Your task to perform on an android device: show emergency info Image 0: 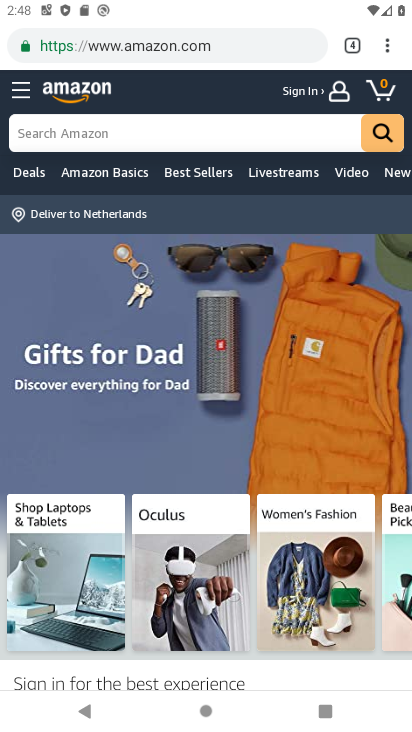
Step 0: press home button
Your task to perform on an android device: show emergency info Image 1: 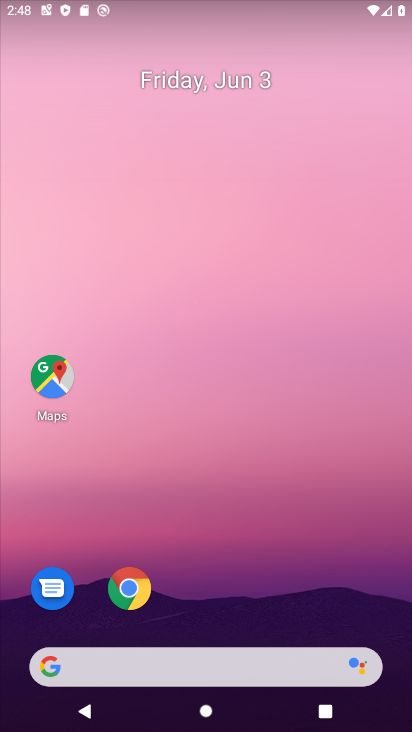
Step 1: drag from (241, 578) to (261, 127)
Your task to perform on an android device: show emergency info Image 2: 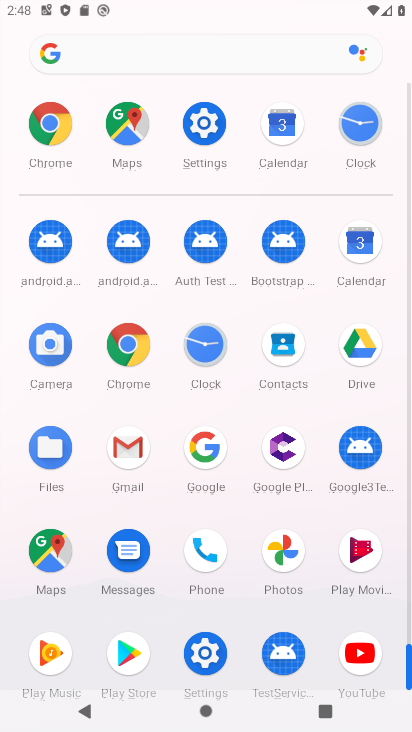
Step 2: drag from (244, 195) to (242, 28)
Your task to perform on an android device: show emergency info Image 3: 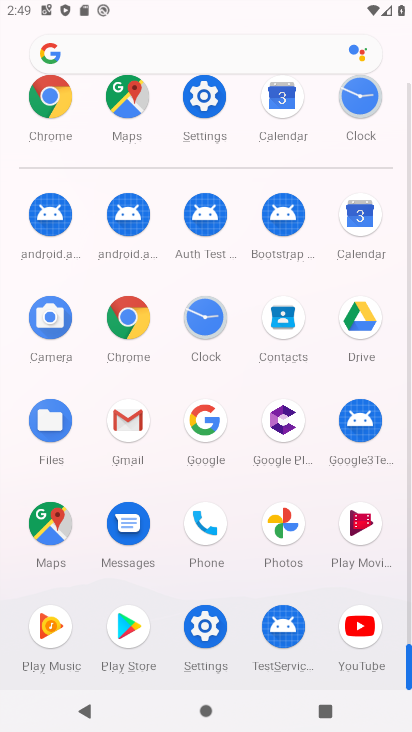
Step 3: click (201, 632)
Your task to perform on an android device: show emergency info Image 4: 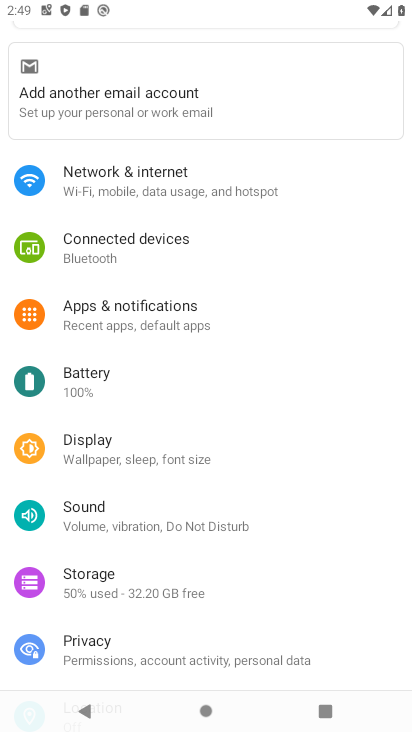
Step 4: drag from (199, 624) to (266, 124)
Your task to perform on an android device: show emergency info Image 5: 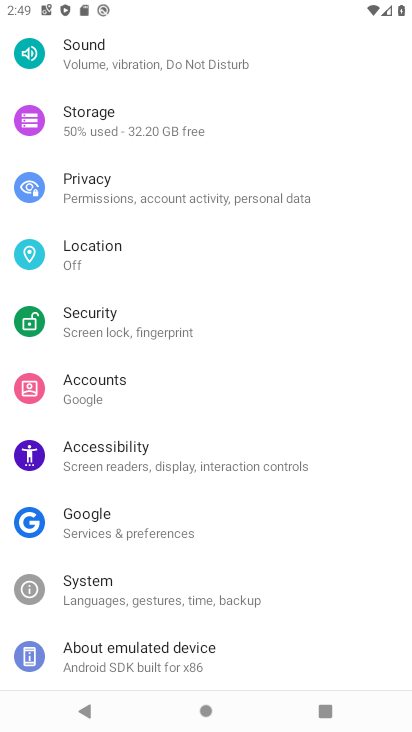
Step 5: click (207, 655)
Your task to perform on an android device: show emergency info Image 6: 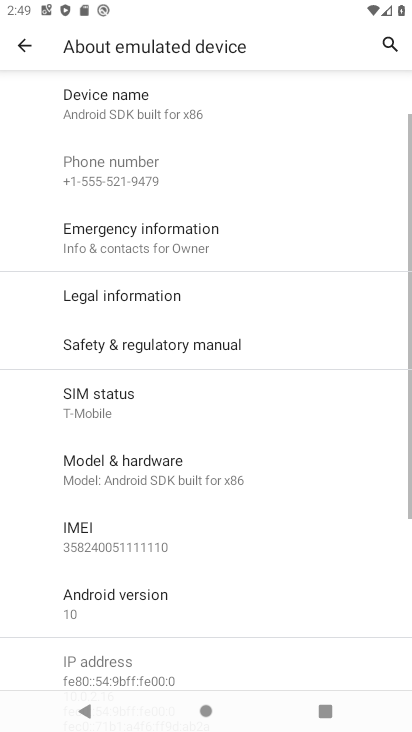
Step 6: click (144, 248)
Your task to perform on an android device: show emergency info Image 7: 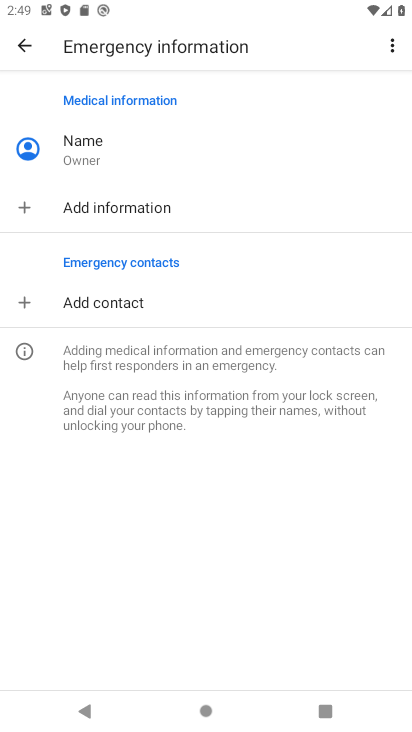
Step 7: task complete